Your task to perform on an android device: Go to display settings Image 0: 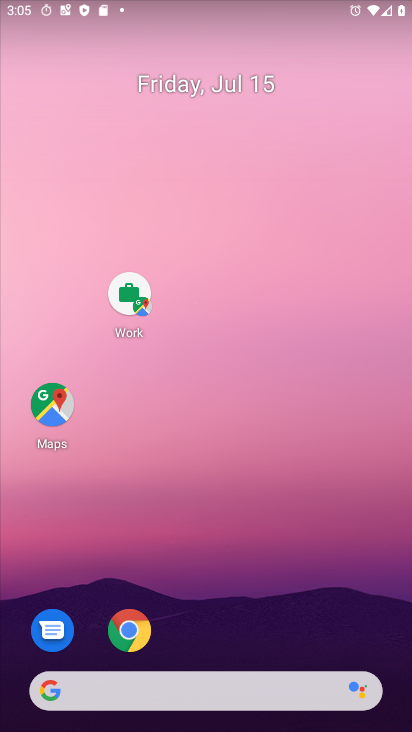
Step 0: drag from (206, 639) to (237, 218)
Your task to perform on an android device: Go to display settings Image 1: 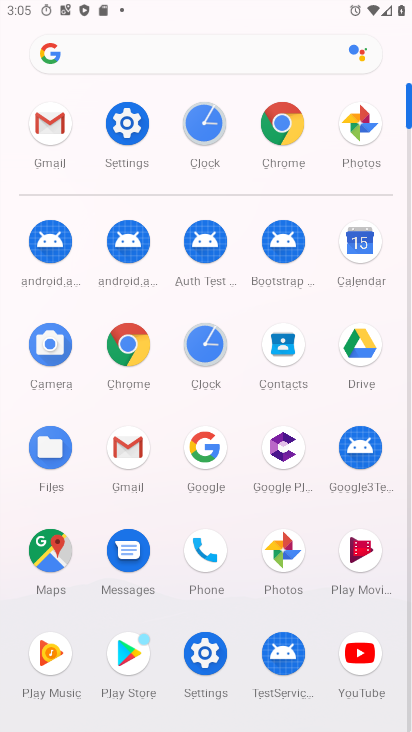
Step 1: click (129, 130)
Your task to perform on an android device: Go to display settings Image 2: 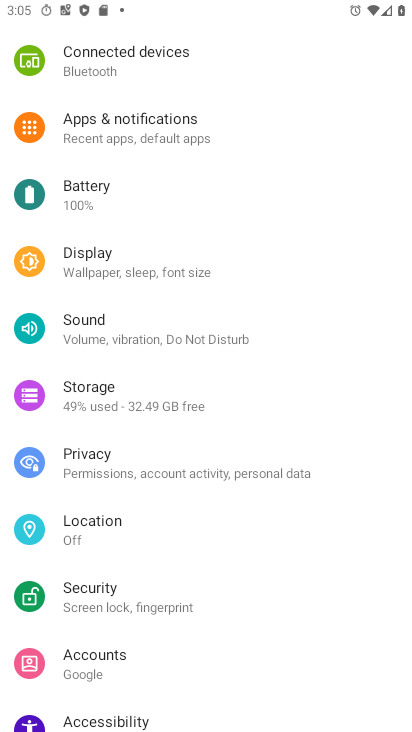
Step 2: click (135, 267)
Your task to perform on an android device: Go to display settings Image 3: 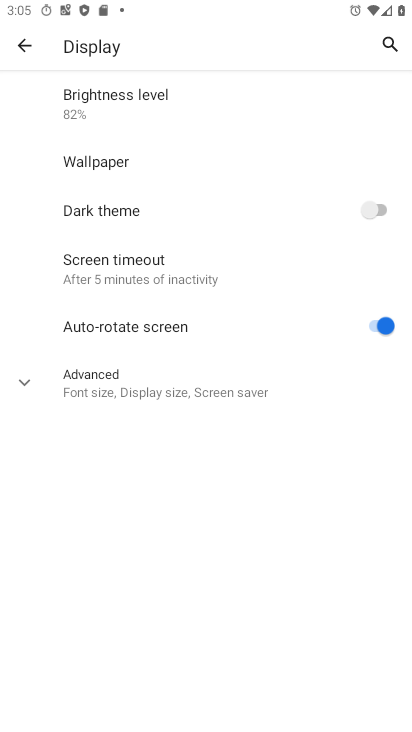
Step 3: task complete